Your task to perform on an android device: Search for the best selling jewelry on Etsy. Image 0: 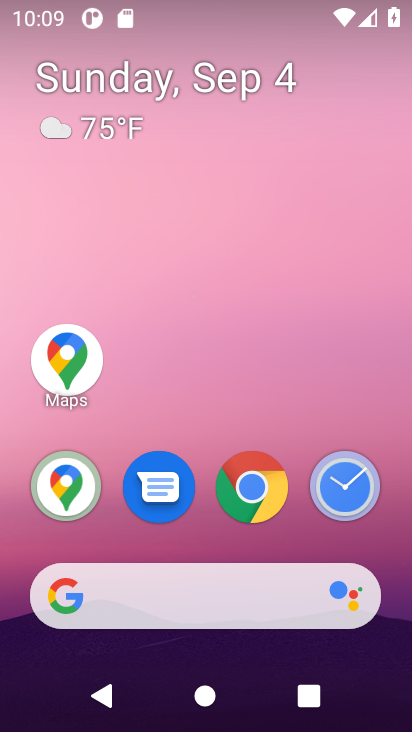
Step 0: click (258, 475)
Your task to perform on an android device: Search for the best selling jewelry on Etsy. Image 1: 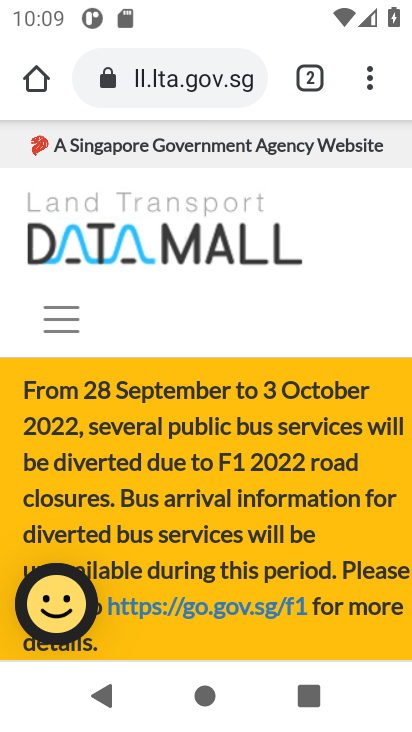
Step 1: task complete